Your task to perform on an android device: visit the assistant section in the google photos Image 0: 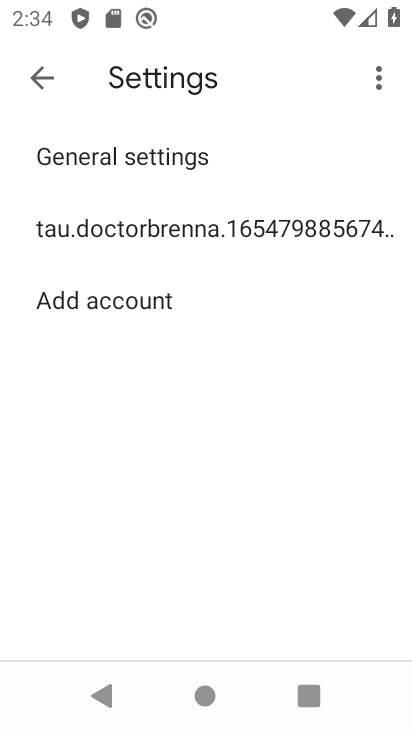
Step 0: press back button
Your task to perform on an android device: visit the assistant section in the google photos Image 1: 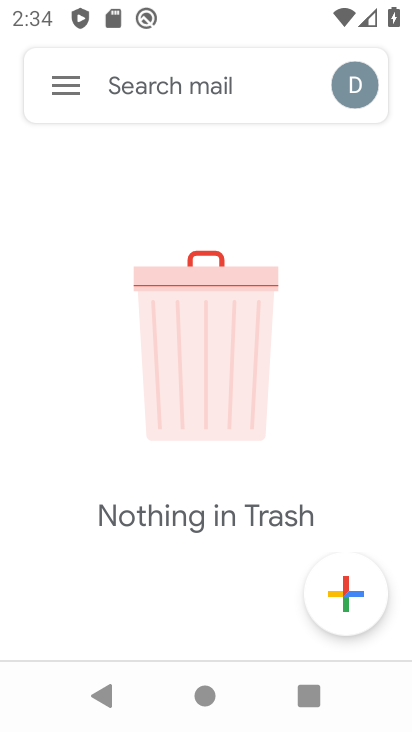
Step 1: press back button
Your task to perform on an android device: visit the assistant section in the google photos Image 2: 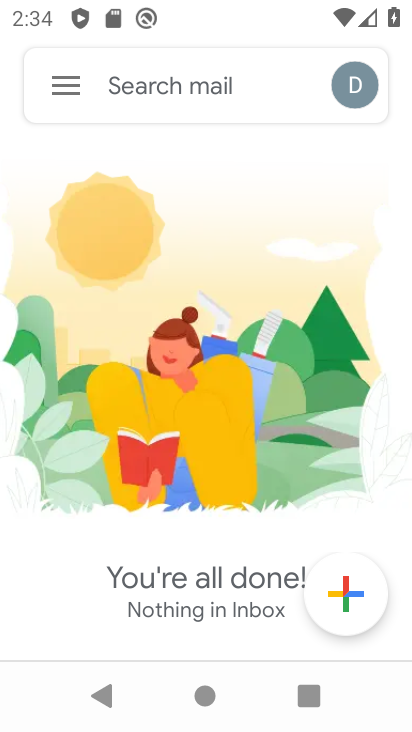
Step 2: press back button
Your task to perform on an android device: visit the assistant section in the google photos Image 3: 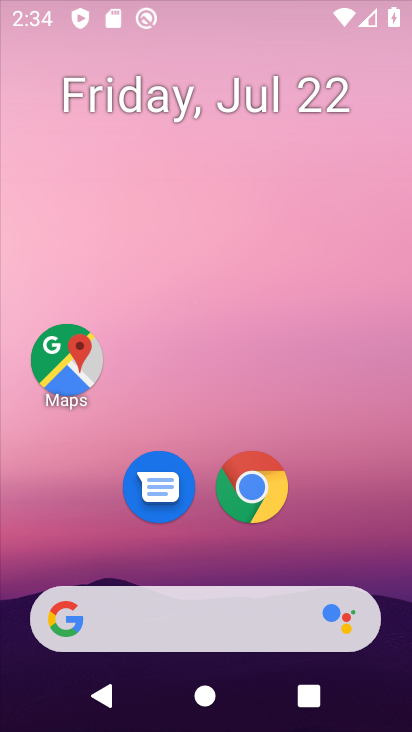
Step 3: press back button
Your task to perform on an android device: visit the assistant section in the google photos Image 4: 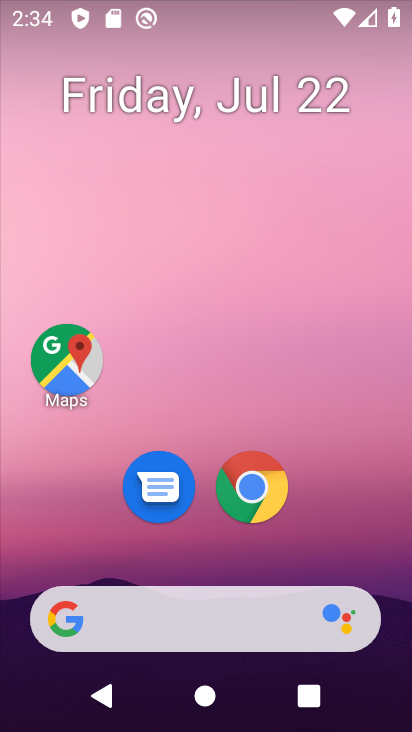
Step 4: drag from (211, 565) to (247, 44)
Your task to perform on an android device: visit the assistant section in the google photos Image 5: 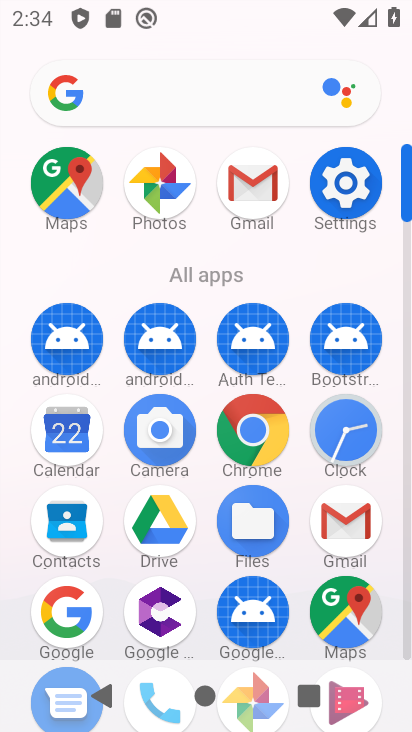
Step 5: click (164, 188)
Your task to perform on an android device: visit the assistant section in the google photos Image 6: 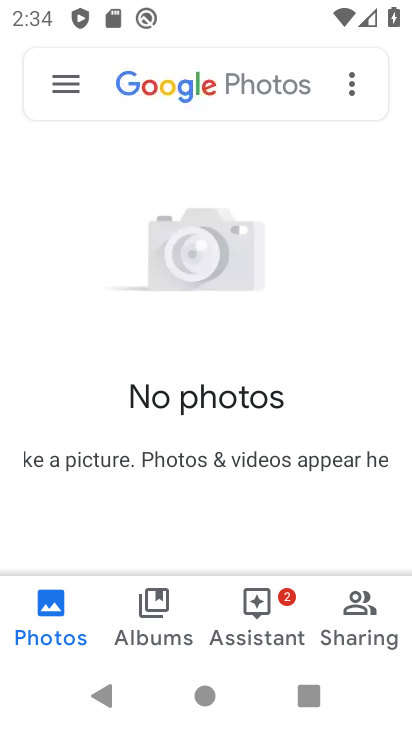
Step 6: click (246, 626)
Your task to perform on an android device: visit the assistant section in the google photos Image 7: 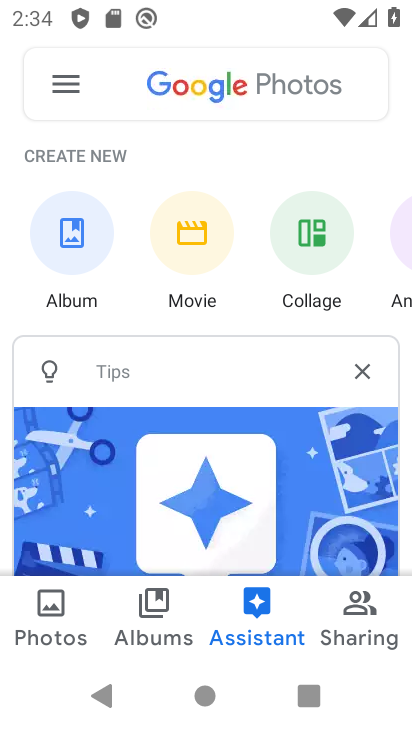
Step 7: task complete